Your task to perform on an android device: star an email in the gmail app Image 0: 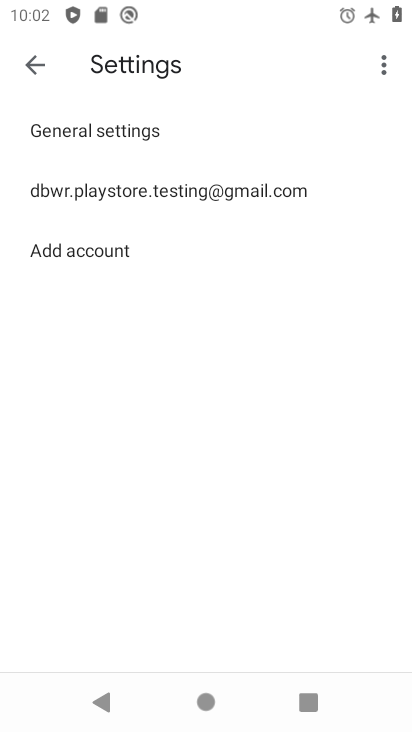
Step 0: press home button
Your task to perform on an android device: star an email in the gmail app Image 1: 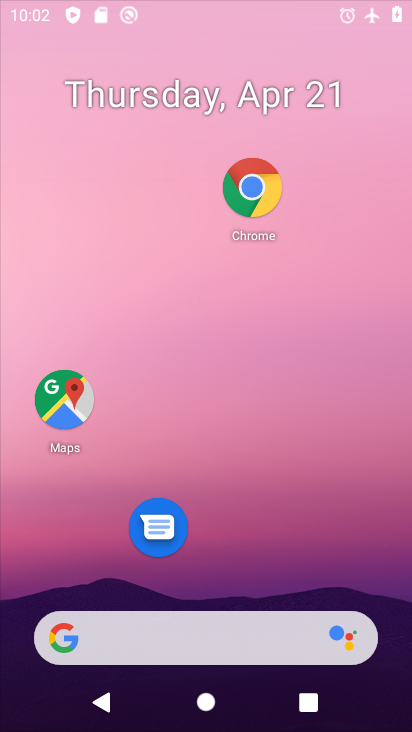
Step 1: drag from (201, 652) to (263, 192)
Your task to perform on an android device: star an email in the gmail app Image 2: 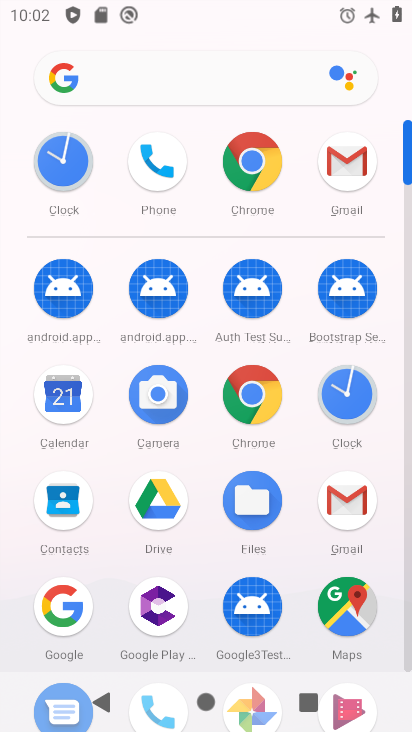
Step 2: click (364, 501)
Your task to perform on an android device: star an email in the gmail app Image 3: 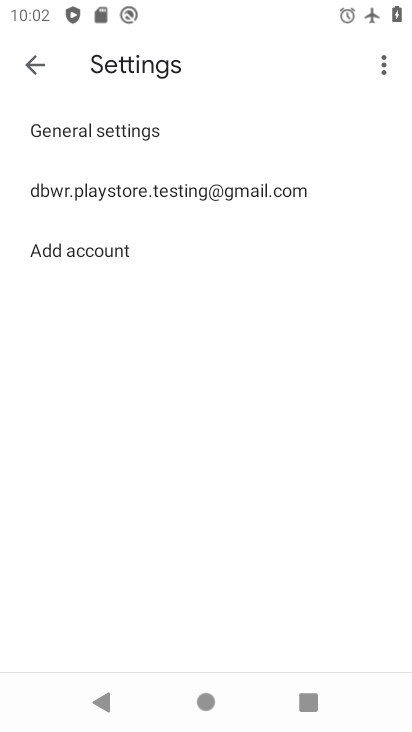
Step 3: press home button
Your task to perform on an android device: star an email in the gmail app Image 4: 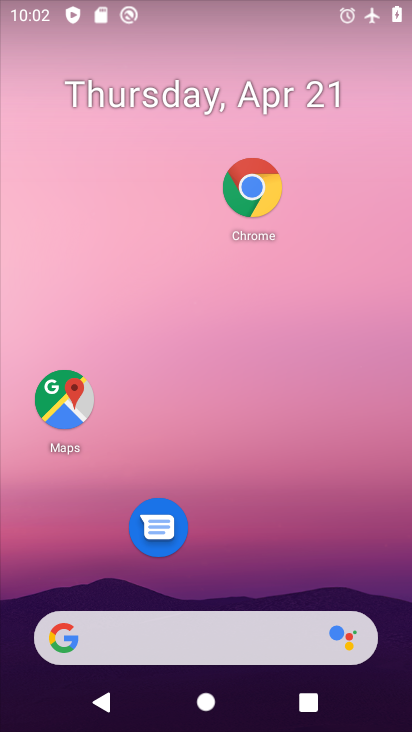
Step 4: drag from (252, 640) to (313, 124)
Your task to perform on an android device: star an email in the gmail app Image 5: 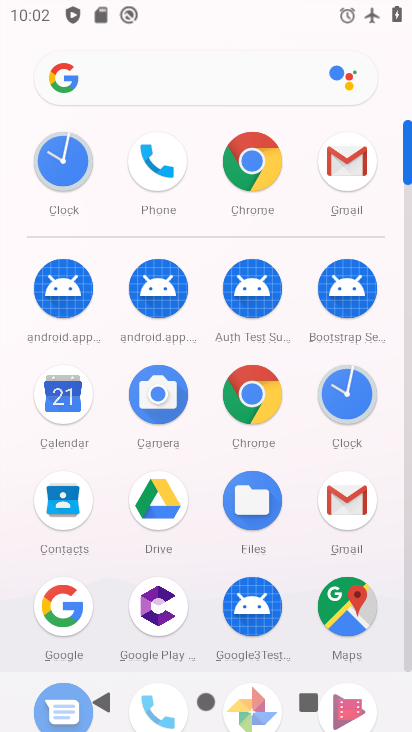
Step 5: click (351, 523)
Your task to perform on an android device: star an email in the gmail app Image 6: 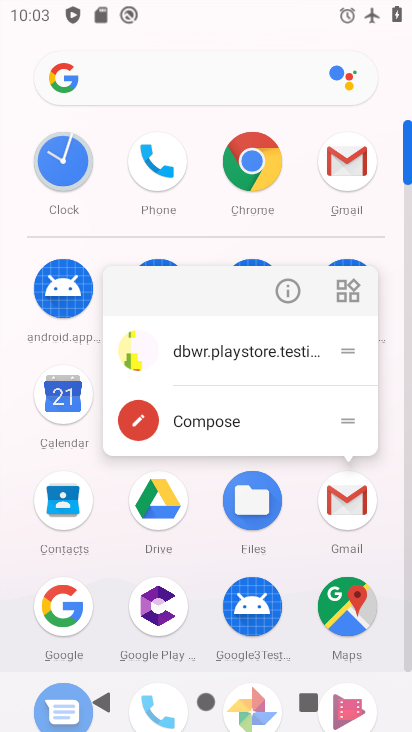
Step 6: click (351, 524)
Your task to perform on an android device: star an email in the gmail app Image 7: 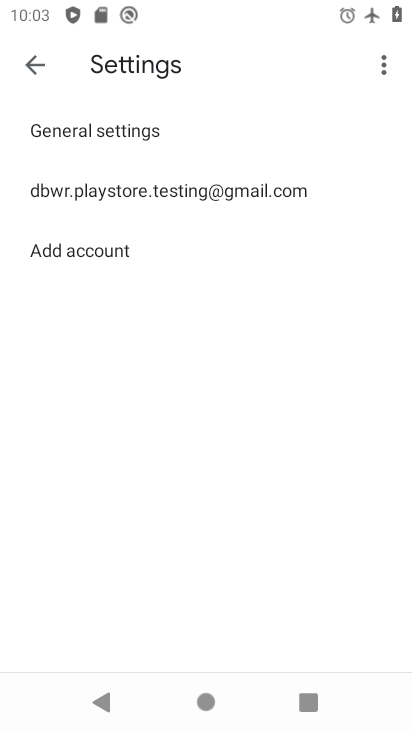
Step 7: click (46, 83)
Your task to perform on an android device: star an email in the gmail app Image 8: 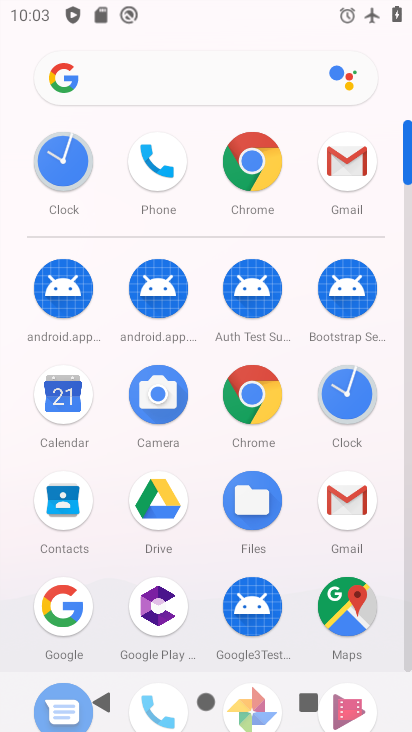
Step 8: click (333, 517)
Your task to perform on an android device: star an email in the gmail app Image 9: 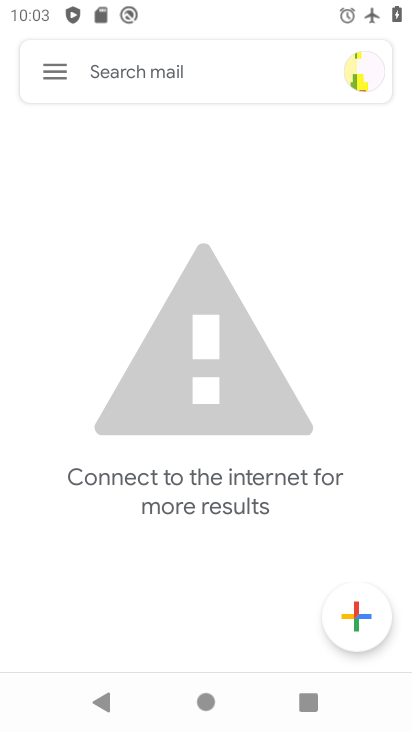
Step 9: click (44, 78)
Your task to perform on an android device: star an email in the gmail app Image 10: 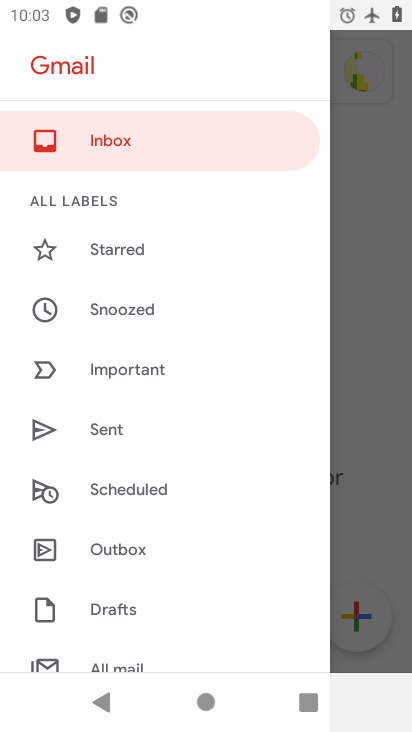
Step 10: drag from (133, 573) to (157, 339)
Your task to perform on an android device: star an email in the gmail app Image 11: 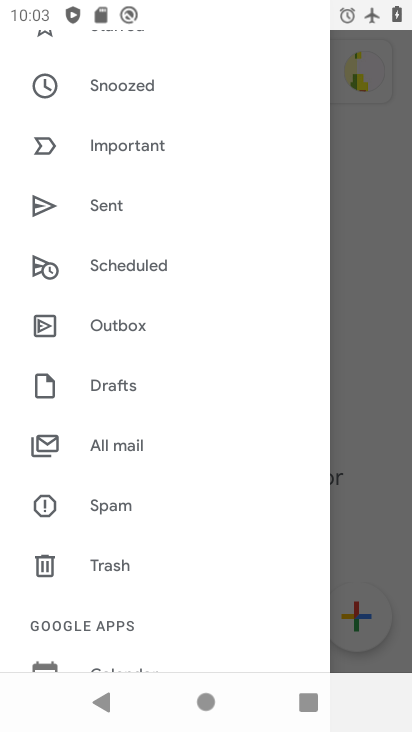
Step 11: click (150, 447)
Your task to perform on an android device: star an email in the gmail app Image 12: 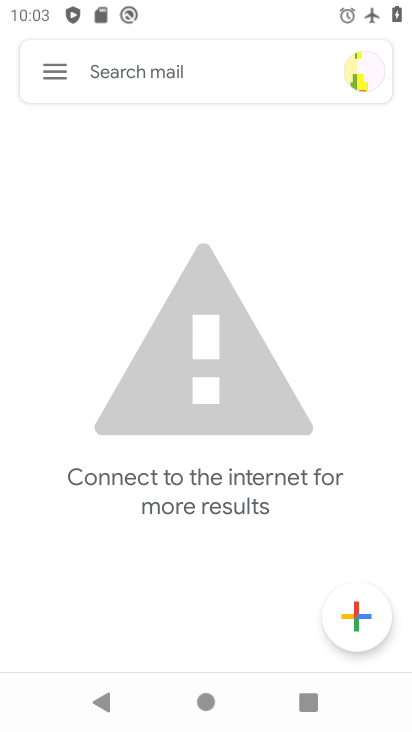
Step 12: task complete